Your task to perform on an android device: allow notifications from all sites in the chrome app Image 0: 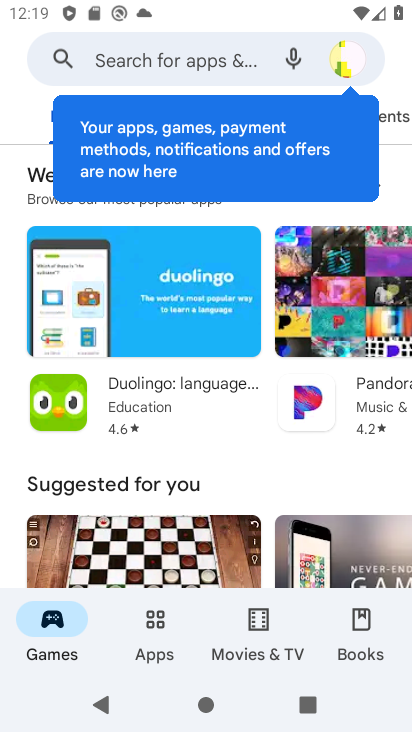
Step 0: press home button
Your task to perform on an android device: allow notifications from all sites in the chrome app Image 1: 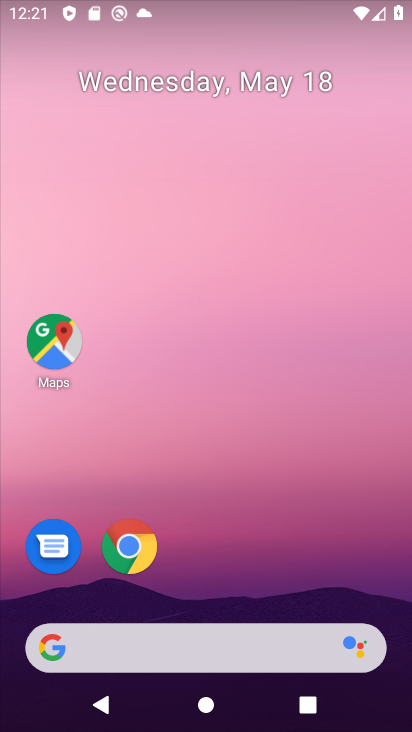
Step 1: click (157, 552)
Your task to perform on an android device: allow notifications from all sites in the chrome app Image 2: 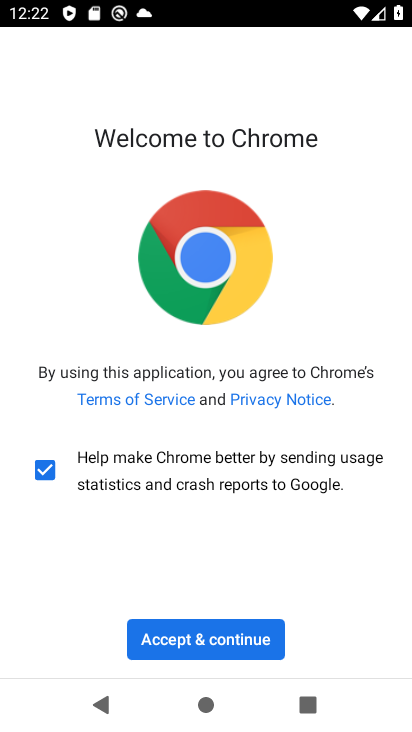
Step 2: click (215, 649)
Your task to perform on an android device: allow notifications from all sites in the chrome app Image 3: 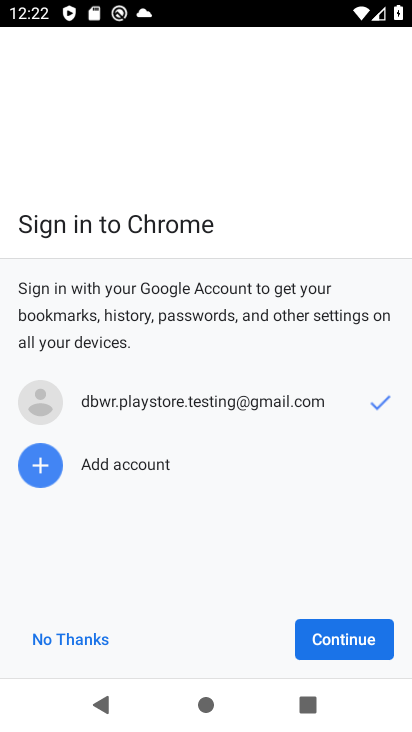
Step 3: click (356, 640)
Your task to perform on an android device: allow notifications from all sites in the chrome app Image 4: 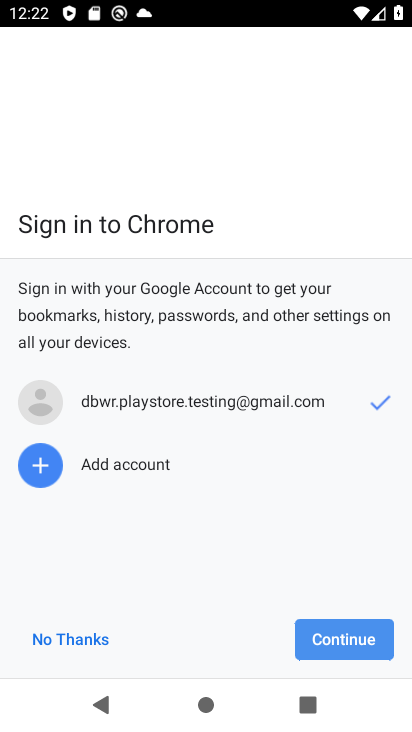
Step 4: click (356, 640)
Your task to perform on an android device: allow notifications from all sites in the chrome app Image 5: 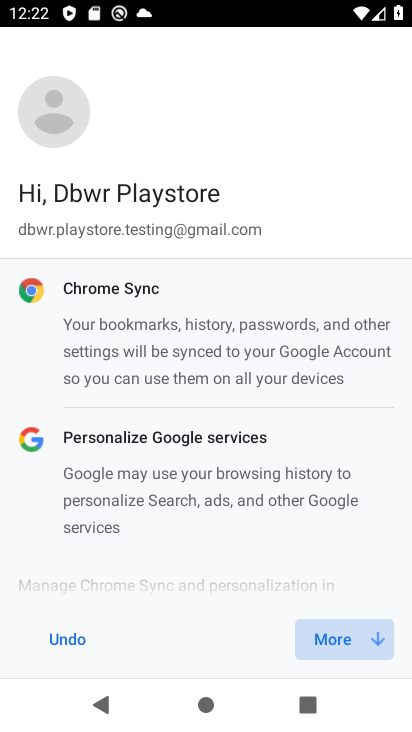
Step 5: click (356, 640)
Your task to perform on an android device: allow notifications from all sites in the chrome app Image 6: 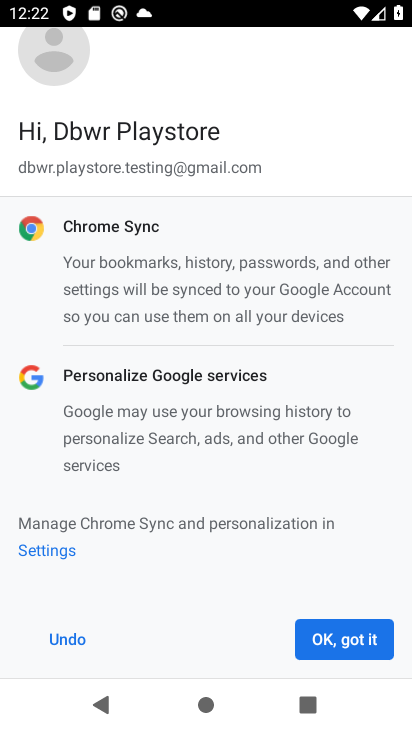
Step 6: click (356, 640)
Your task to perform on an android device: allow notifications from all sites in the chrome app Image 7: 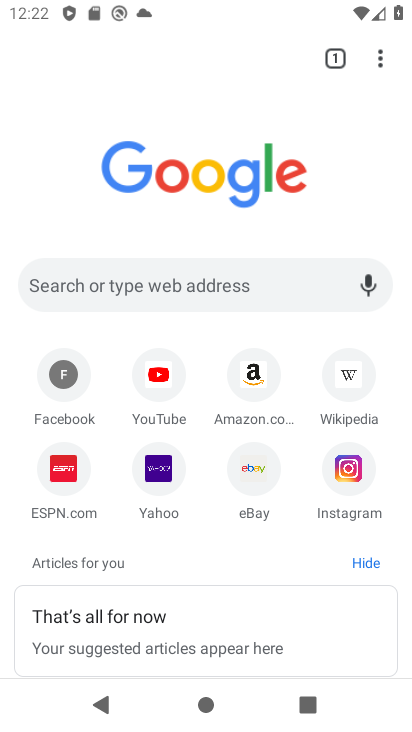
Step 7: drag from (377, 71) to (189, 481)
Your task to perform on an android device: allow notifications from all sites in the chrome app Image 8: 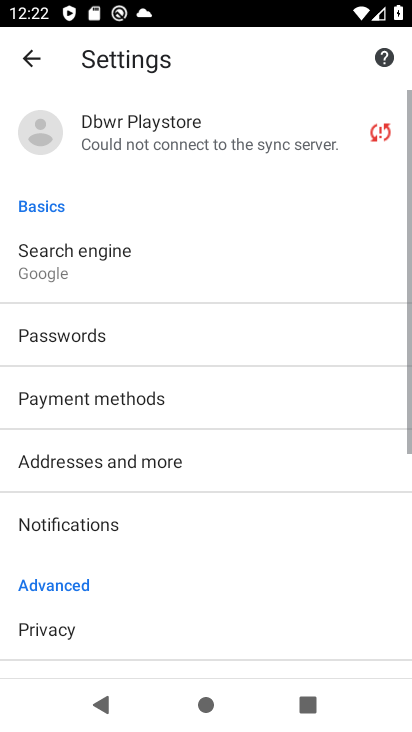
Step 8: drag from (172, 587) to (151, 214)
Your task to perform on an android device: allow notifications from all sites in the chrome app Image 9: 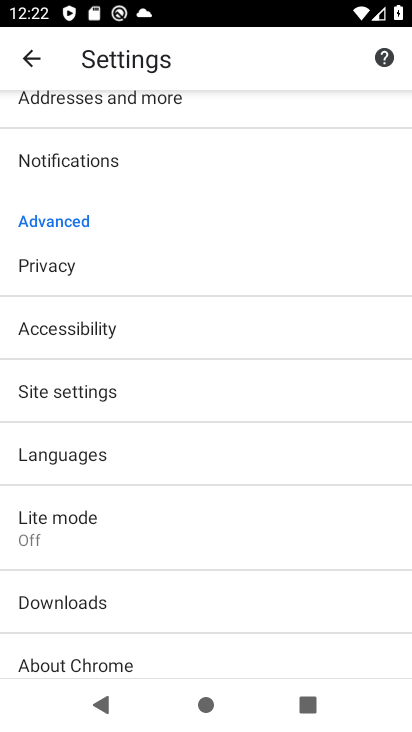
Step 9: click (121, 409)
Your task to perform on an android device: allow notifications from all sites in the chrome app Image 10: 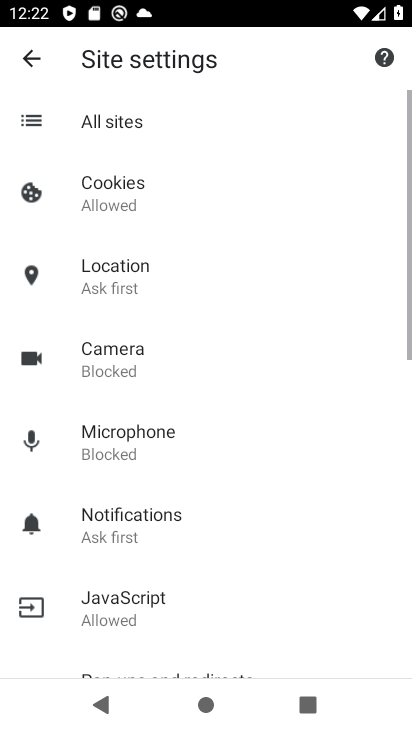
Step 10: click (65, 134)
Your task to perform on an android device: allow notifications from all sites in the chrome app Image 11: 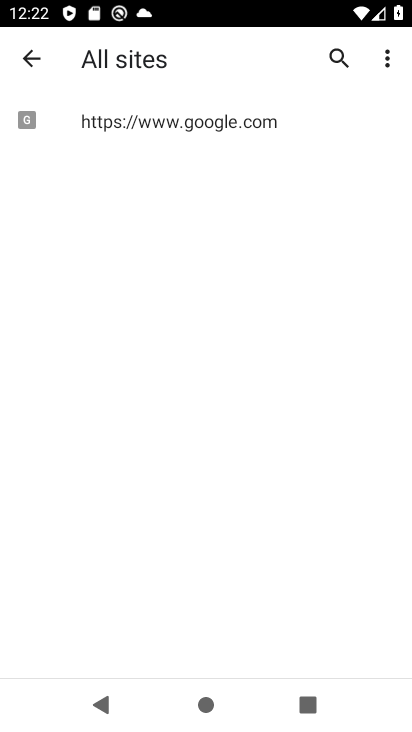
Step 11: click (111, 121)
Your task to perform on an android device: allow notifications from all sites in the chrome app Image 12: 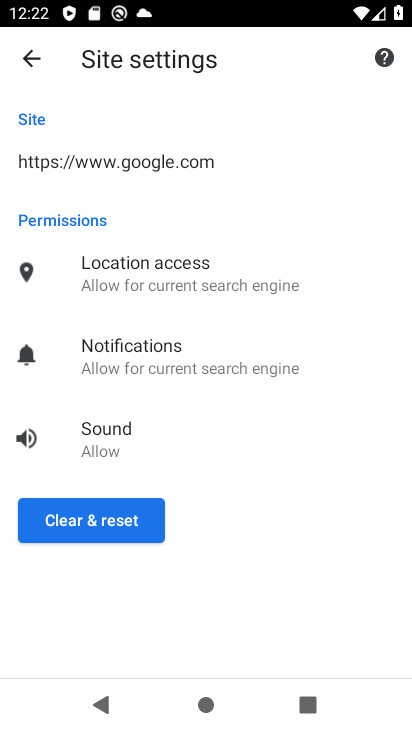
Step 12: click (105, 359)
Your task to perform on an android device: allow notifications from all sites in the chrome app Image 13: 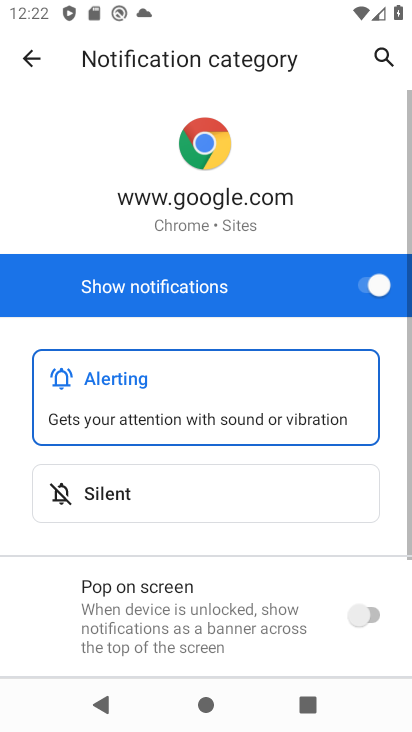
Step 13: drag from (184, 582) to (170, 111)
Your task to perform on an android device: allow notifications from all sites in the chrome app Image 14: 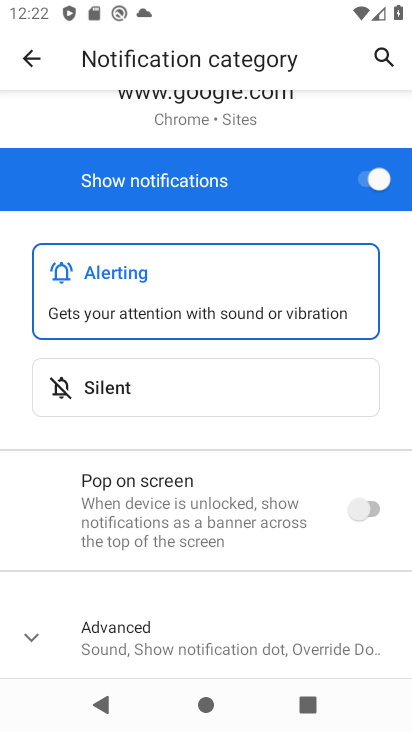
Step 14: click (310, 500)
Your task to perform on an android device: allow notifications from all sites in the chrome app Image 15: 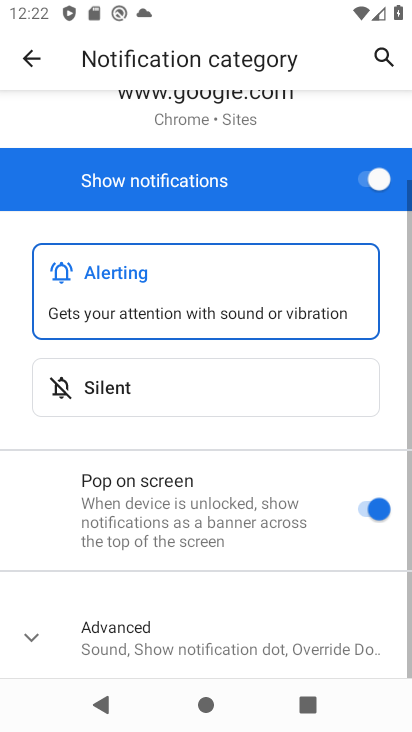
Step 15: click (249, 628)
Your task to perform on an android device: allow notifications from all sites in the chrome app Image 16: 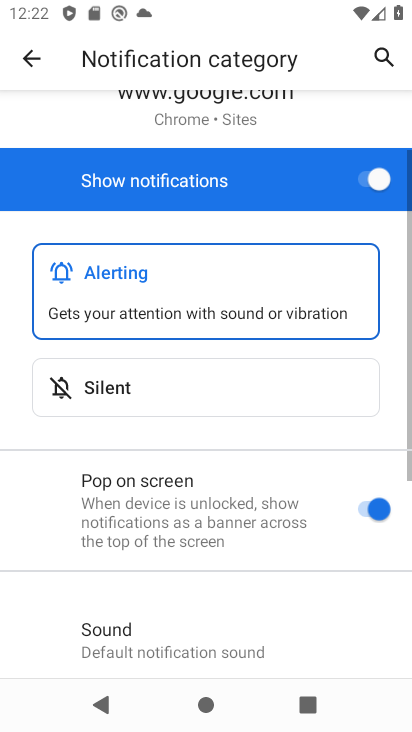
Step 16: drag from (249, 628) to (238, 224)
Your task to perform on an android device: allow notifications from all sites in the chrome app Image 17: 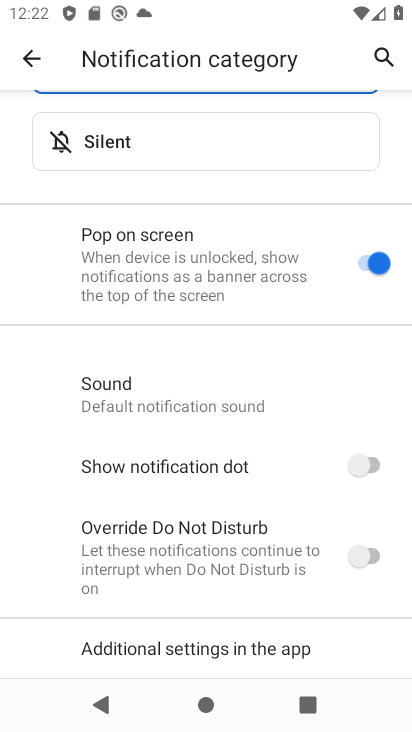
Step 17: click (352, 467)
Your task to perform on an android device: allow notifications from all sites in the chrome app Image 18: 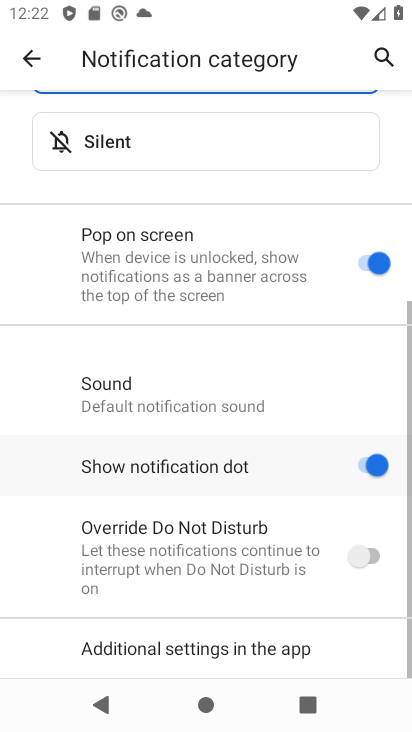
Step 18: click (343, 569)
Your task to perform on an android device: allow notifications from all sites in the chrome app Image 19: 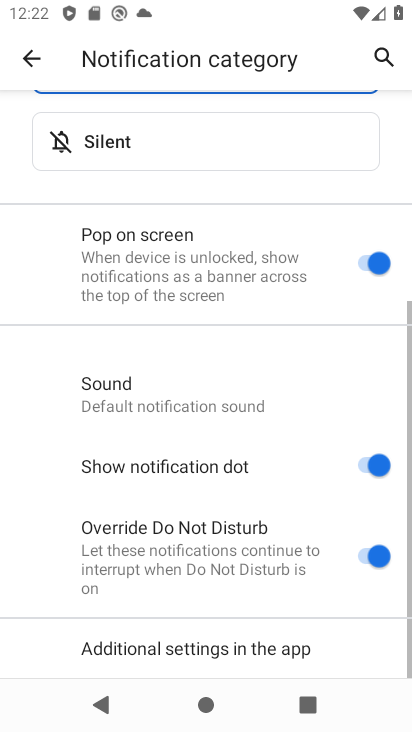
Step 19: task complete